Your task to perform on an android device: allow cookies in the chrome app Image 0: 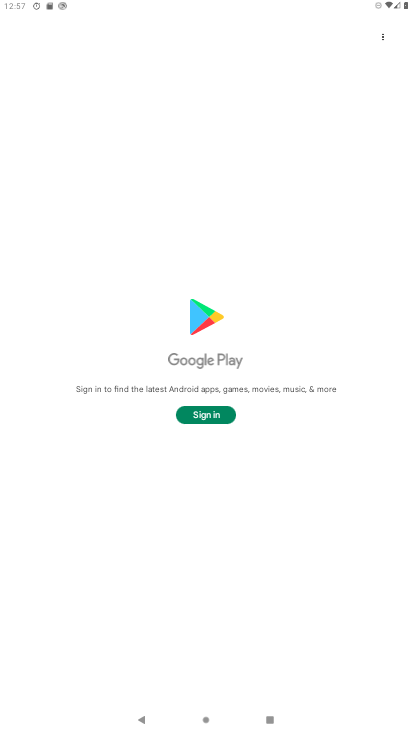
Step 0: press home button
Your task to perform on an android device: allow cookies in the chrome app Image 1: 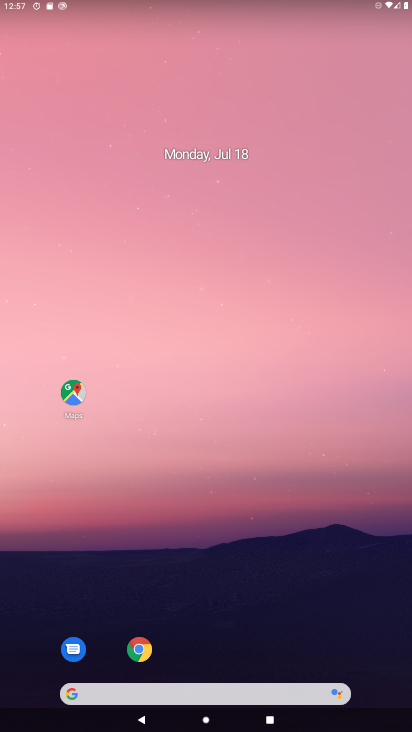
Step 1: click (141, 647)
Your task to perform on an android device: allow cookies in the chrome app Image 2: 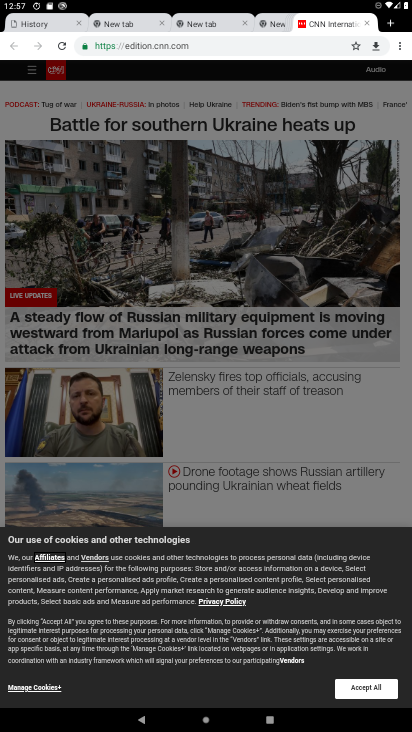
Step 2: click (398, 37)
Your task to perform on an android device: allow cookies in the chrome app Image 3: 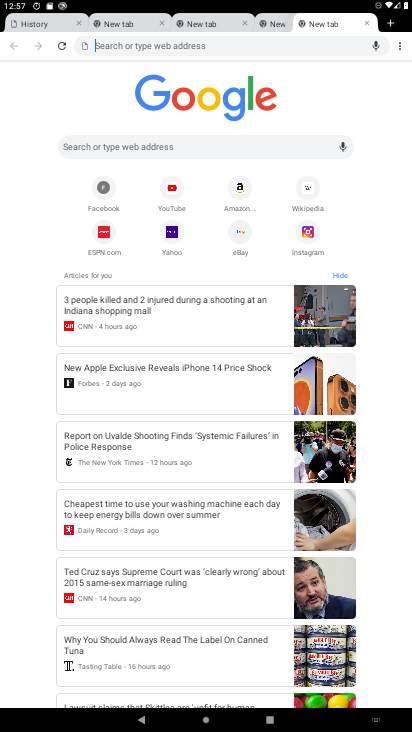
Step 3: click (399, 42)
Your task to perform on an android device: allow cookies in the chrome app Image 4: 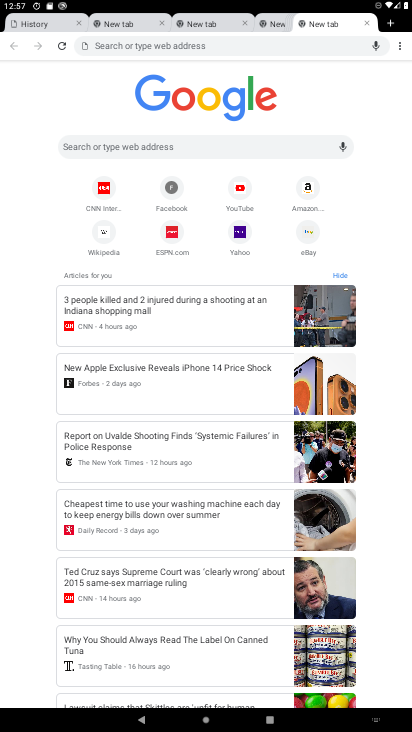
Step 4: click (396, 54)
Your task to perform on an android device: allow cookies in the chrome app Image 5: 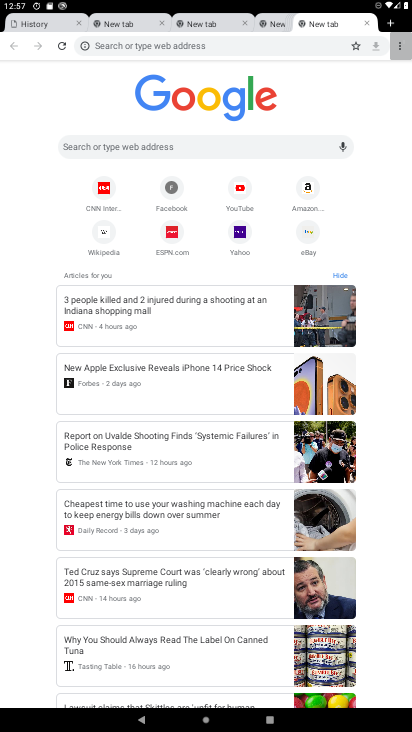
Step 5: click (402, 48)
Your task to perform on an android device: allow cookies in the chrome app Image 6: 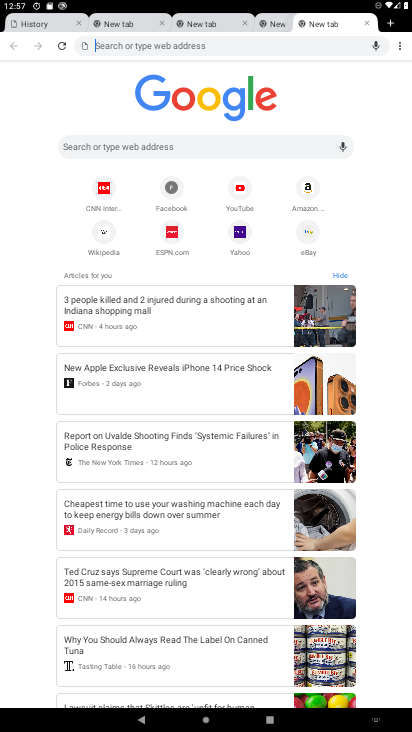
Step 6: click (402, 48)
Your task to perform on an android device: allow cookies in the chrome app Image 7: 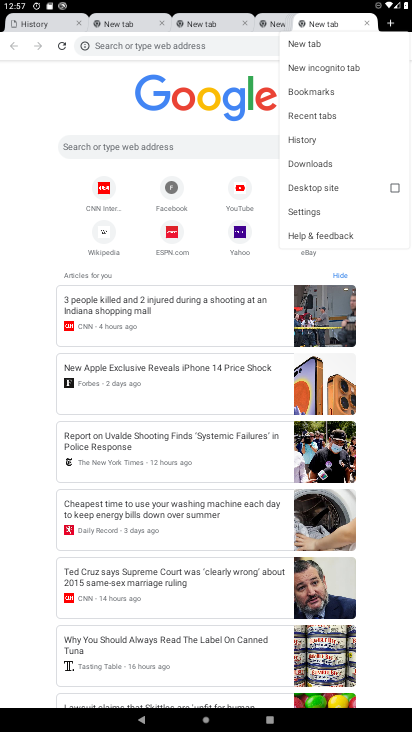
Step 7: click (311, 207)
Your task to perform on an android device: allow cookies in the chrome app Image 8: 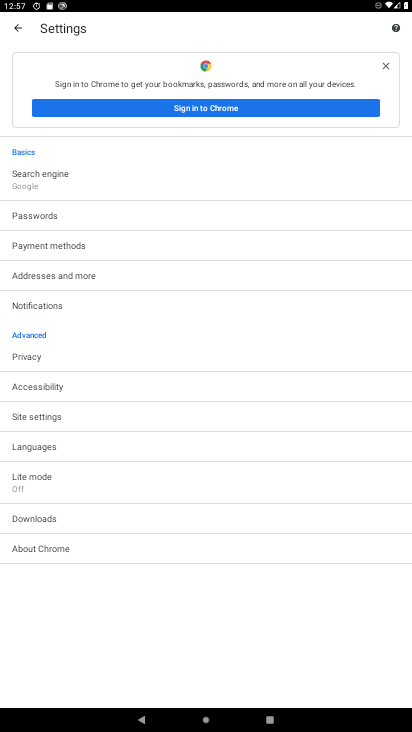
Step 8: click (40, 416)
Your task to perform on an android device: allow cookies in the chrome app Image 9: 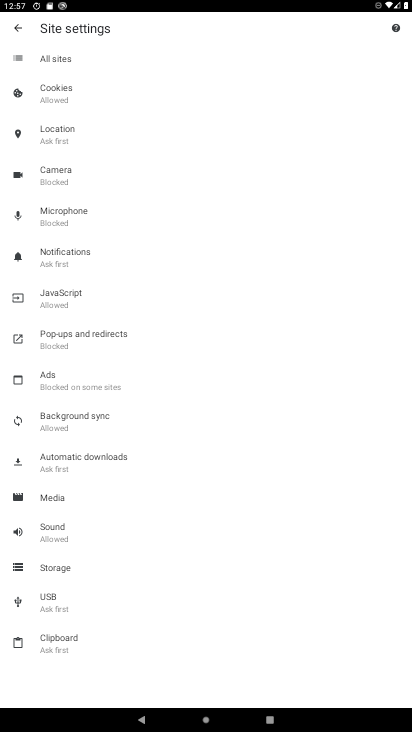
Step 9: click (78, 95)
Your task to perform on an android device: allow cookies in the chrome app Image 10: 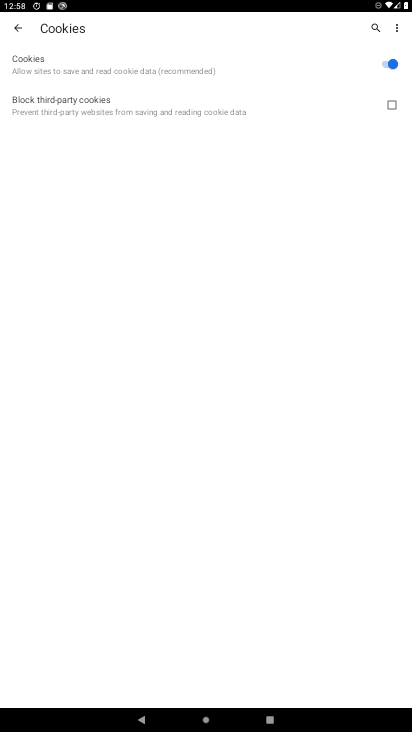
Step 10: task complete